Your task to perform on an android device: Check the weather Image 0: 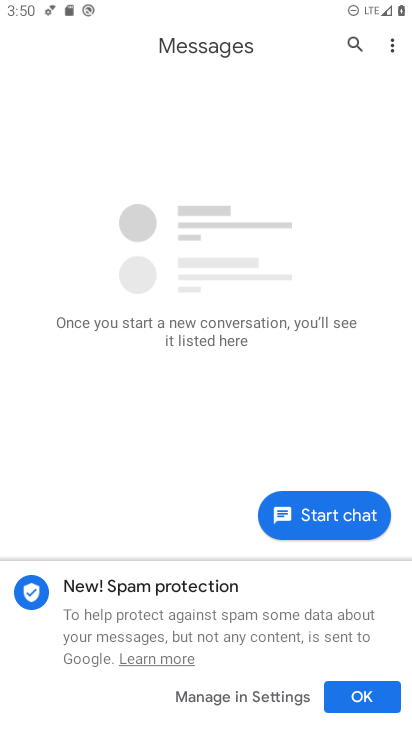
Step 0: press home button
Your task to perform on an android device: Check the weather Image 1: 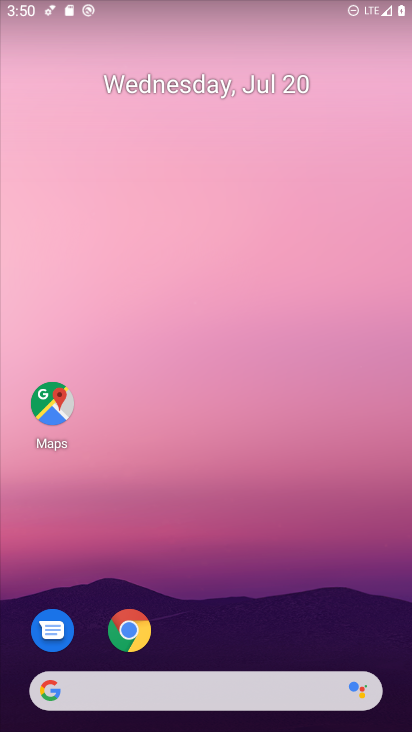
Step 1: click (187, 685)
Your task to perform on an android device: Check the weather Image 2: 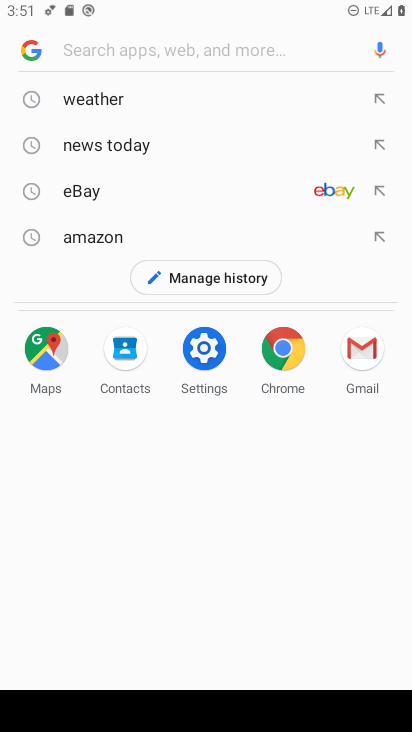
Step 2: click (137, 92)
Your task to perform on an android device: Check the weather Image 3: 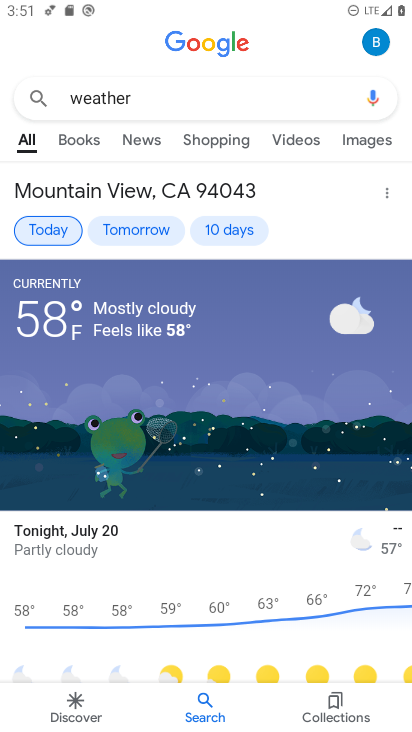
Step 3: task complete